Your task to perform on an android device: set an alarm Image 0: 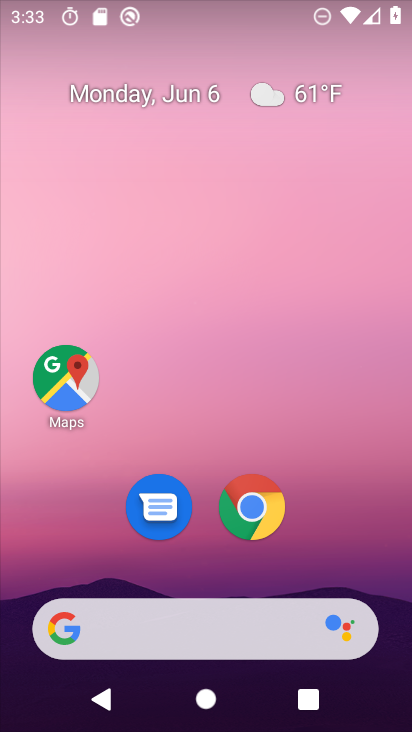
Step 0: drag from (212, 580) to (212, 146)
Your task to perform on an android device: set an alarm Image 1: 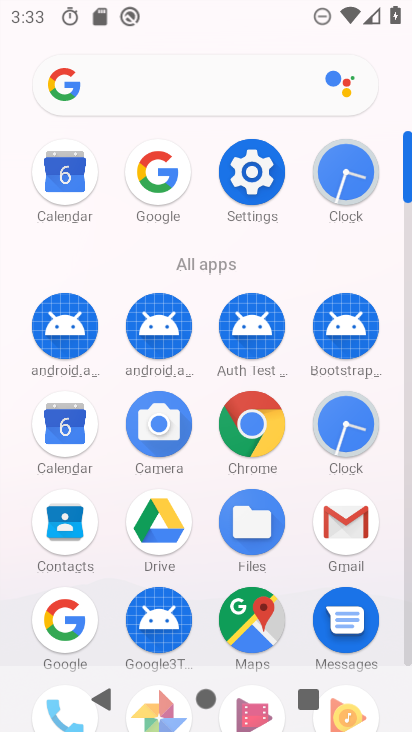
Step 1: click (352, 205)
Your task to perform on an android device: set an alarm Image 2: 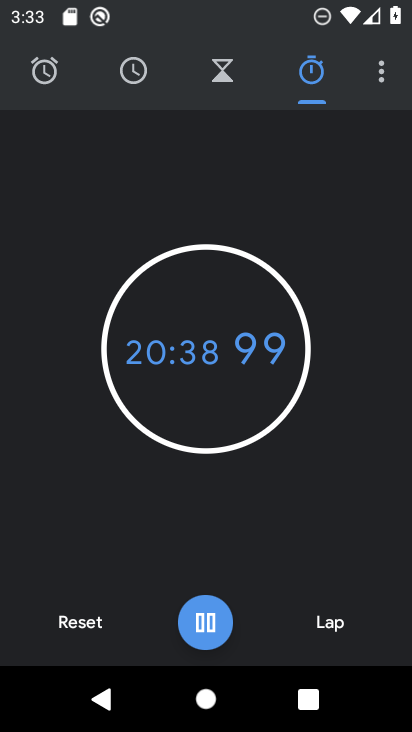
Step 2: click (35, 81)
Your task to perform on an android device: set an alarm Image 3: 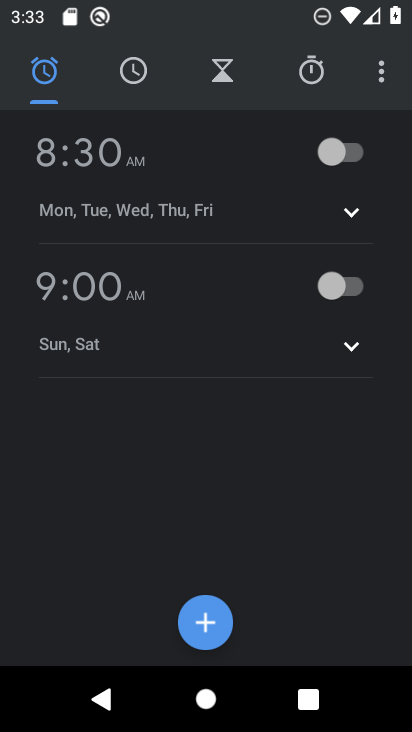
Step 3: click (356, 162)
Your task to perform on an android device: set an alarm Image 4: 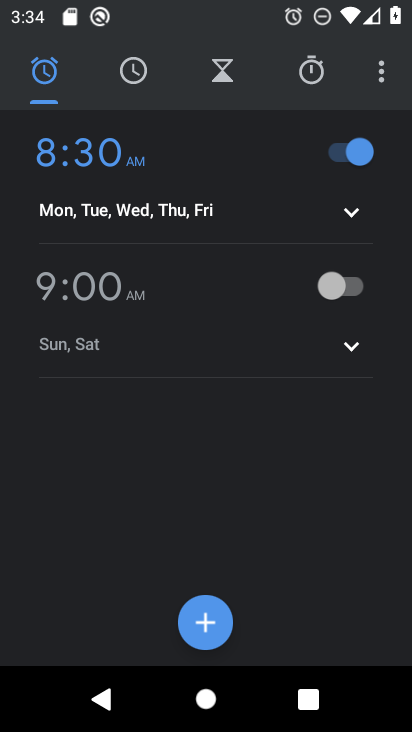
Step 4: task complete